Your task to perform on an android device: turn off location history Image 0: 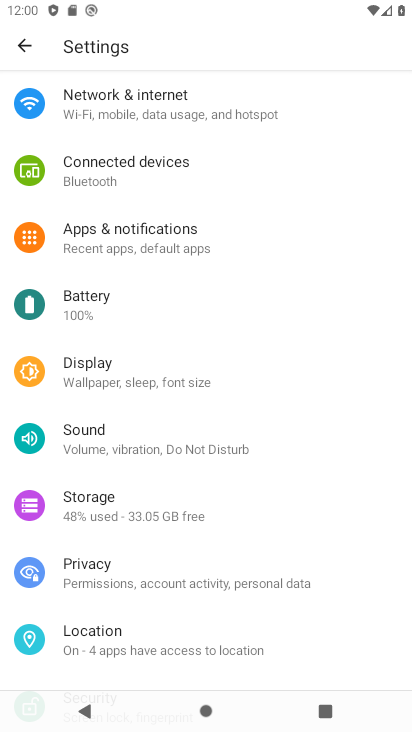
Step 0: press home button
Your task to perform on an android device: turn off location history Image 1: 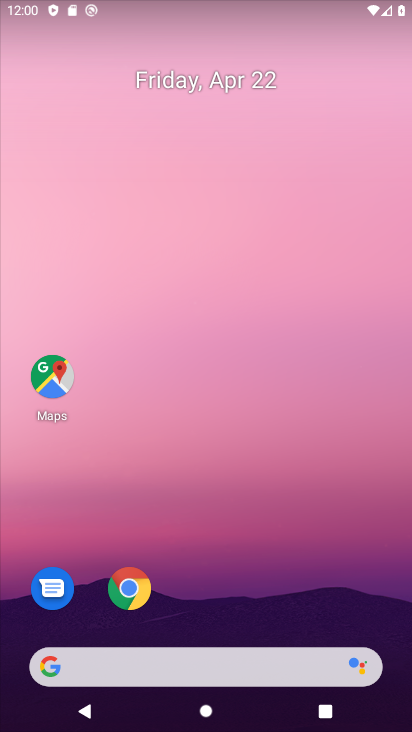
Step 1: drag from (301, 569) to (336, 144)
Your task to perform on an android device: turn off location history Image 2: 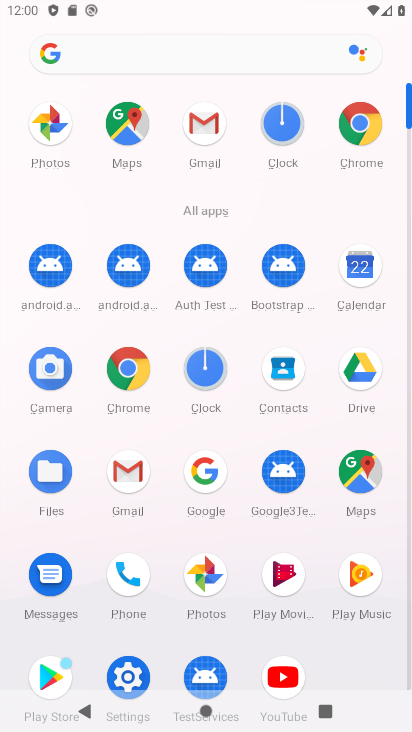
Step 2: click (364, 479)
Your task to perform on an android device: turn off location history Image 3: 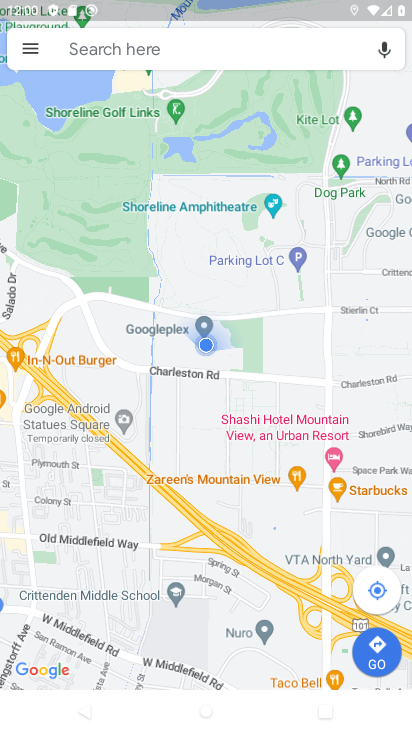
Step 3: click (37, 51)
Your task to perform on an android device: turn off location history Image 4: 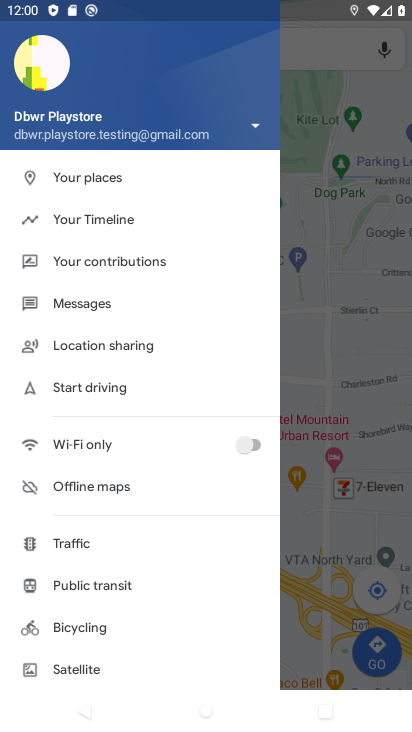
Step 4: click (75, 214)
Your task to perform on an android device: turn off location history Image 5: 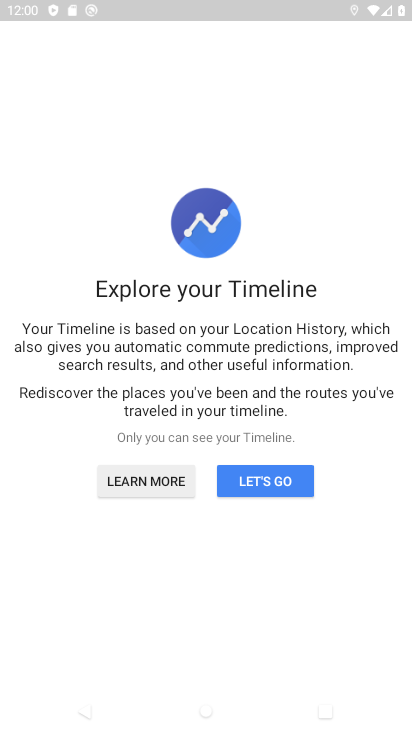
Step 5: click (268, 475)
Your task to perform on an android device: turn off location history Image 6: 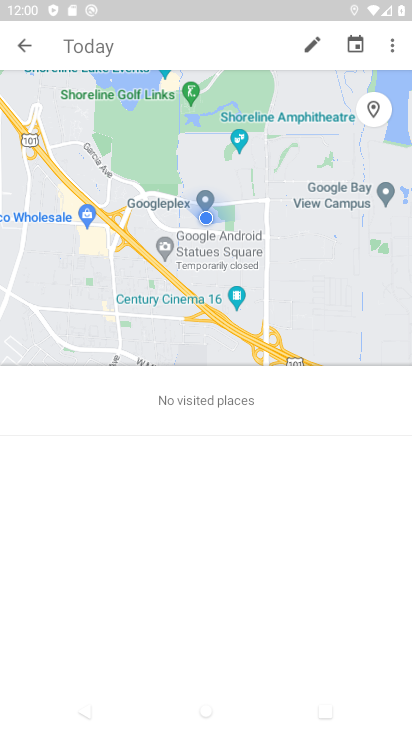
Step 6: click (391, 42)
Your task to perform on an android device: turn off location history Image 7: 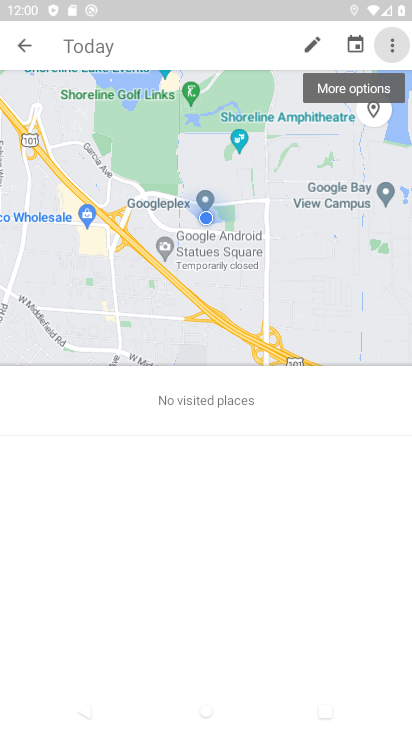
Step 7: click (391, 42)
Your task to perform on an android device: turn off location history Image 8: 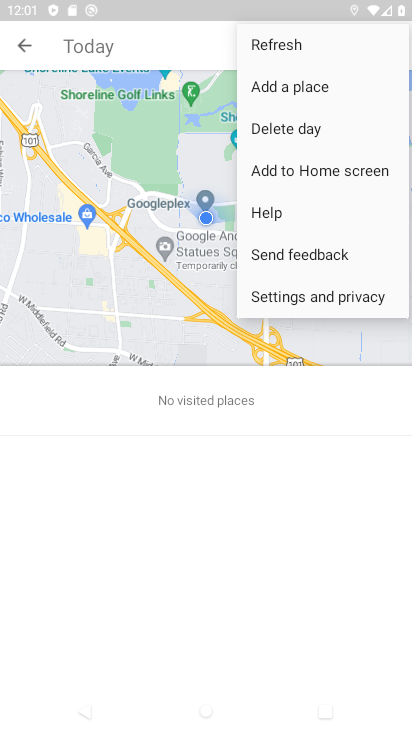
Step 8: click (347, 295)
Your task to perform on an android device: turn off location history Image 9: 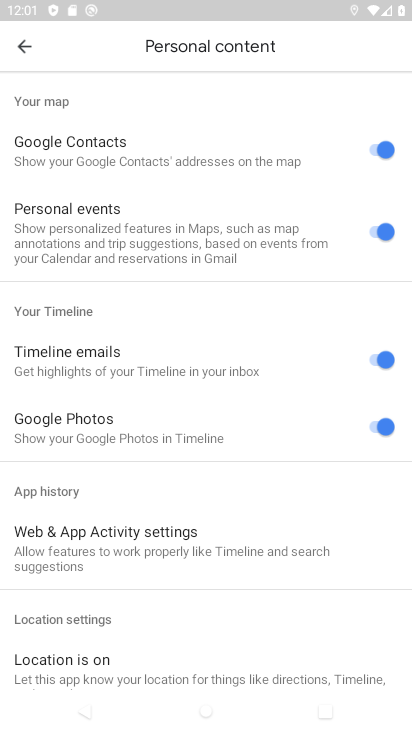
Step 9: drag from (300, 610) to (295, 184)
Your task to perform on an android device: turn off location history Image 10: 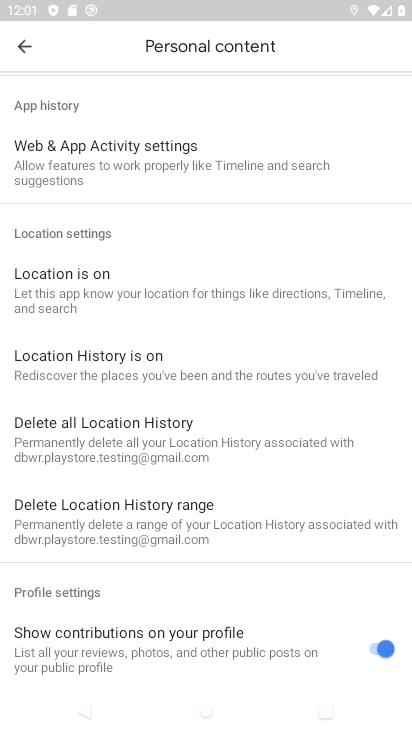
Step 10: click (88, 355)
Your task to perform on an android device: turn off location history Image 11: 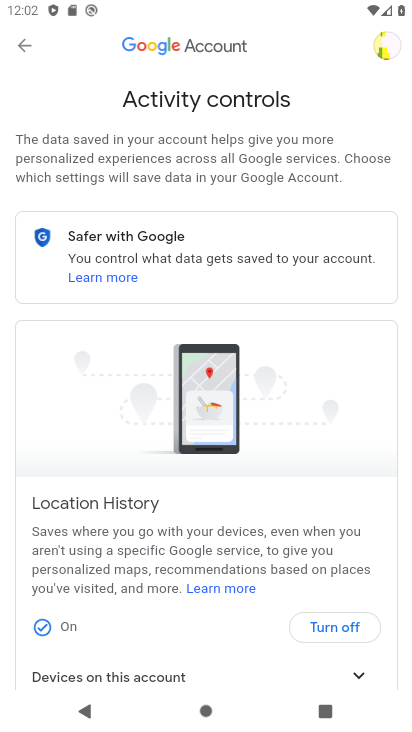
Step 11: click (336, 627)
Your task to perform on an android device: turn off location history Image 12: 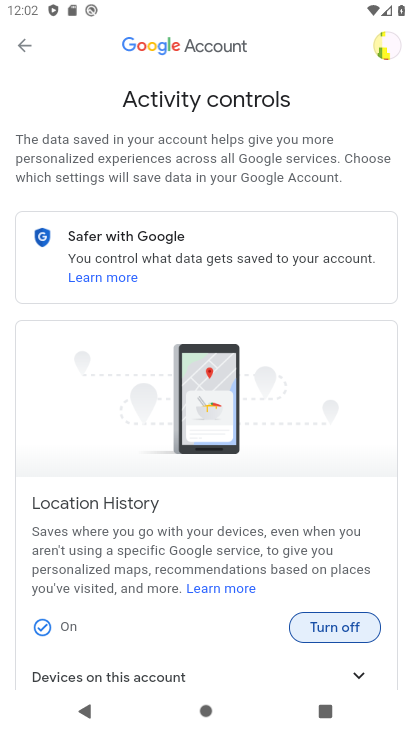
Step 12: click (347, 620)
Your task to perform on an android device: turn off location history Image 13: 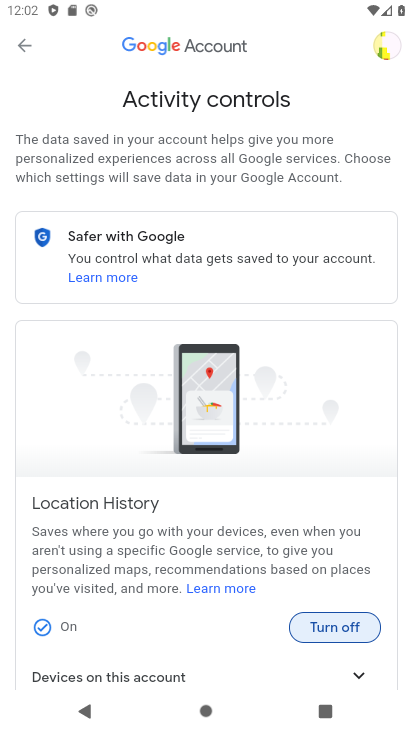
Step 13: click (336, 625)
Your task to perform on an android device: turn off location history Image 14: 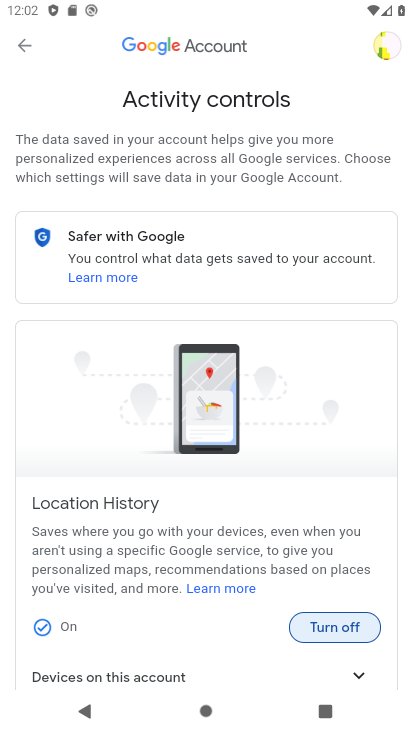
Step 14: click (334, 620)
Your task to perform on an android device: turn off location history Image 15: 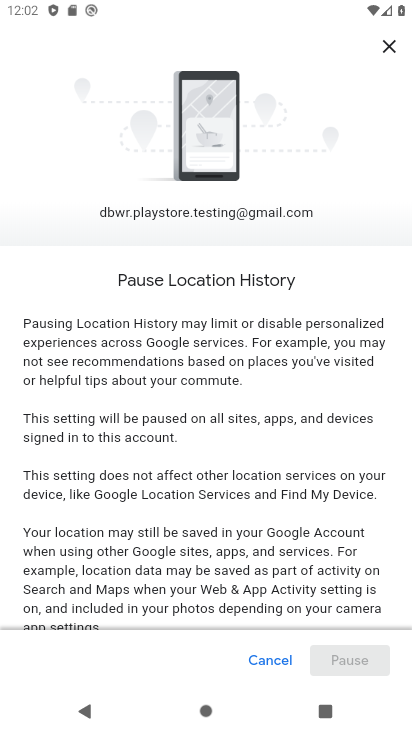
Step 15: drag from (349, 606) to (379, 272)
Your task to perform on an android device: turn off location history Image 16: 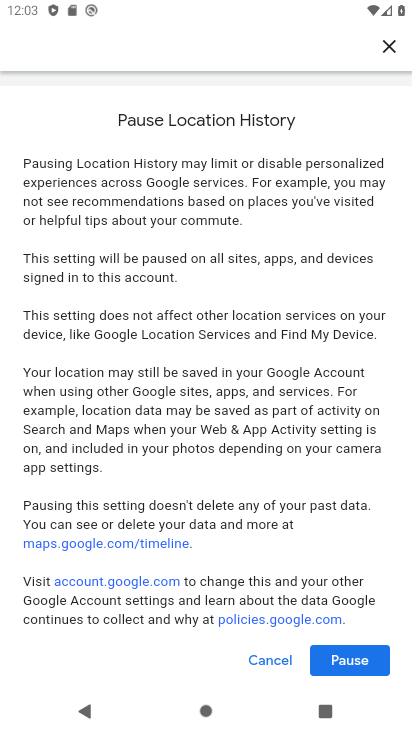
Step 16: click (359, 660)
Your task to perform on an android device: turn off location history Image 17: 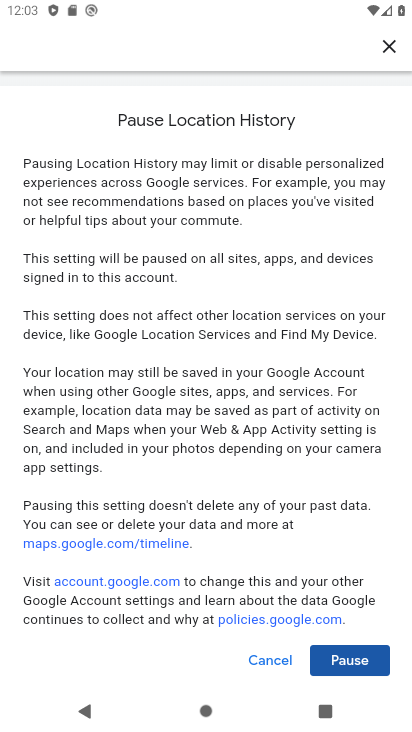
Step 17: click (359, 660)
Your task to perform on an android device: turn off location history Image 18: 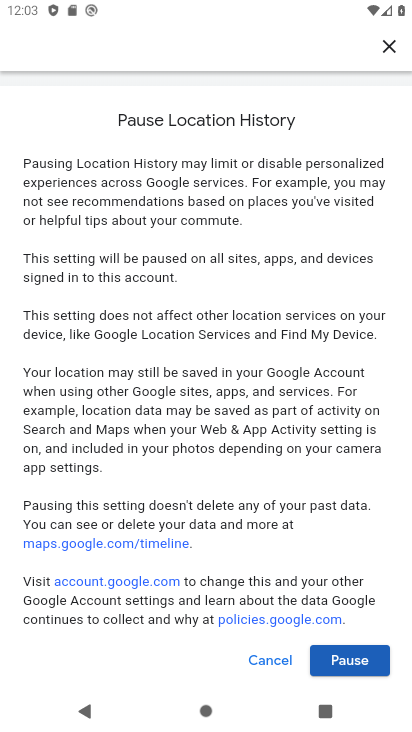
Step 18: click (353, 663)
Your task to perform on an android device: turn off location history Image 19: 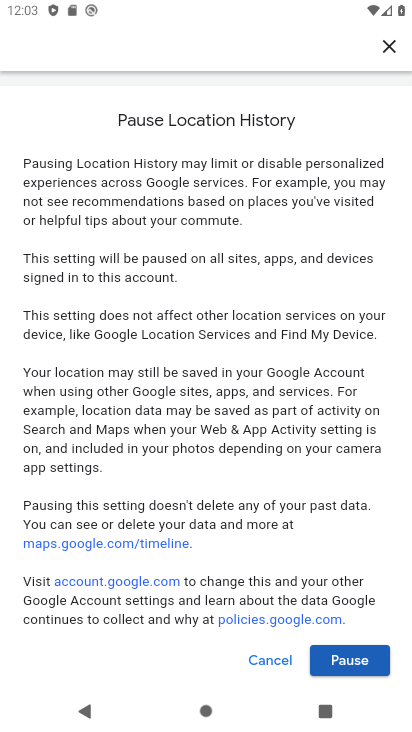
Step 19: click (350, 664)
Your task to perform on an android device: turn off location history Image 20: 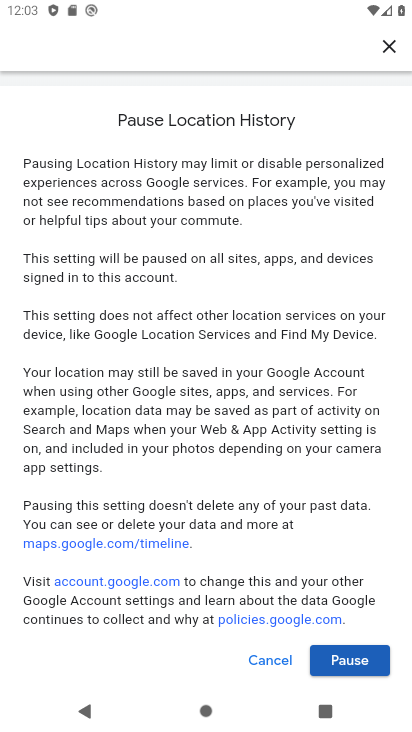
Step 20: click (350, 661)
Your task to perform on an android device: turn off location history Image 21: 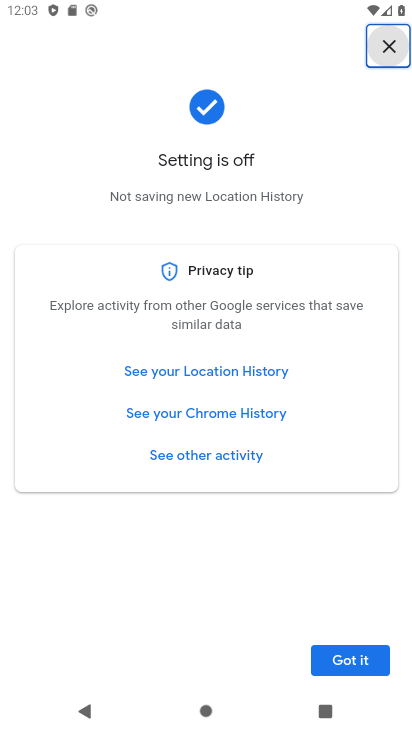
Step 21: click (377, 655)
Your task to perform on an android device: turn off location history Image 22: 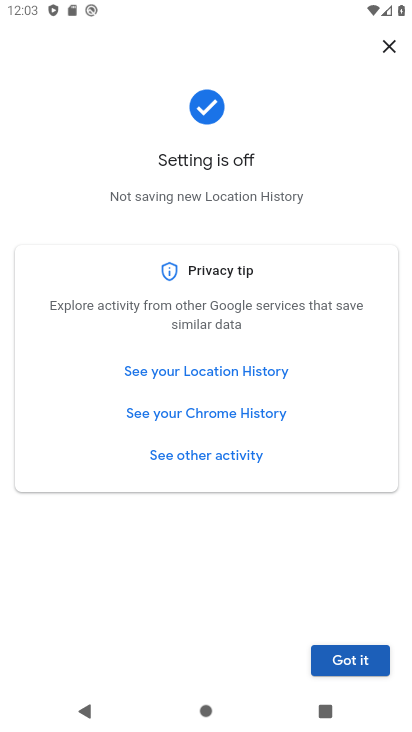
Step 22: click (377, 655)
Your task to perform on an android device: turn off location history Image 23: 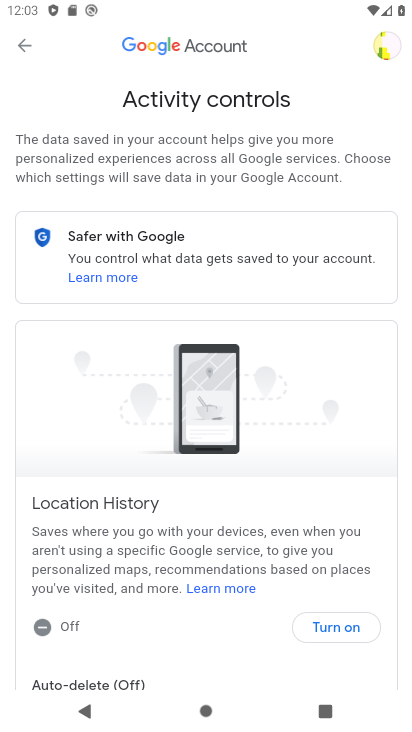
Step 23: task complete